Your task to perform on an android device: turn on notifications settings in the gmail app Image 0: 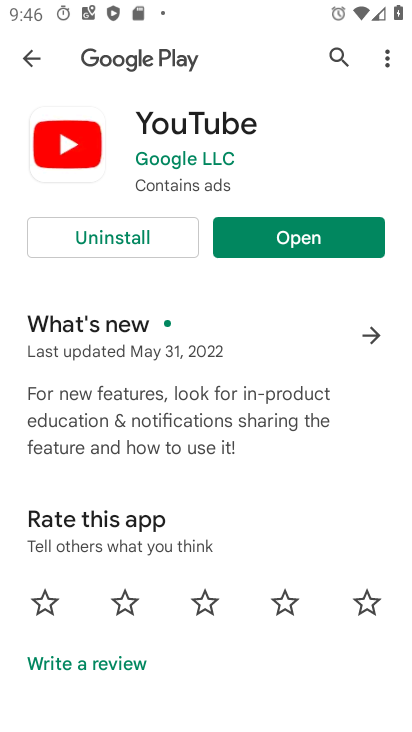
Step 0: press home button
Your task to perform on an android device: turn on notifications settings in the gmail app Image 1: 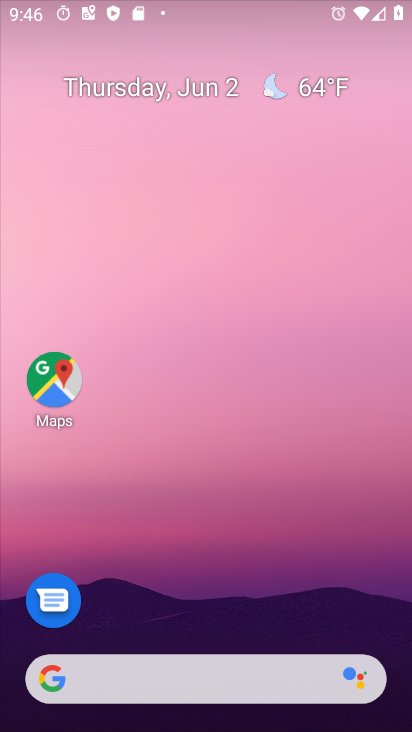
Step 1: drag from (207, 576) to (192, 62)
Your task to perform on an android device: turn on notifications settings in the gmail app Image 2: 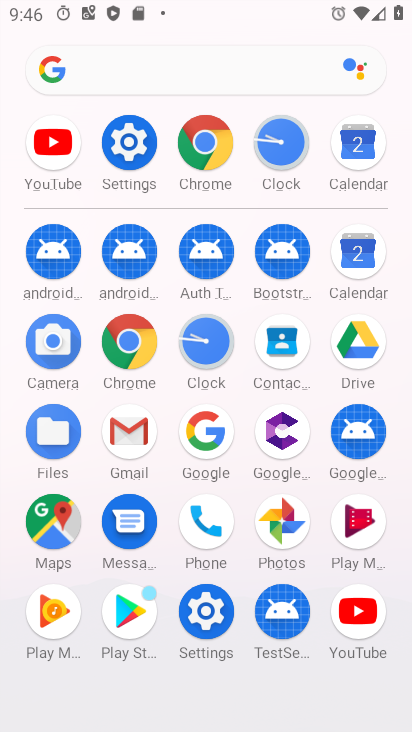
Step 2: click (127, 433)
Your task to perform on an android device: turn on notifications settings in the gmail app Image 3: 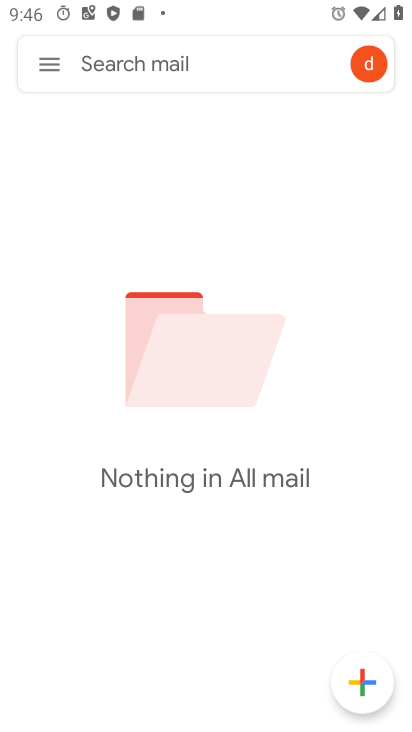
Step 3: click (49, 72)
Your task to perform on an android device: turn on notifications settings in the gmail app Image 4: 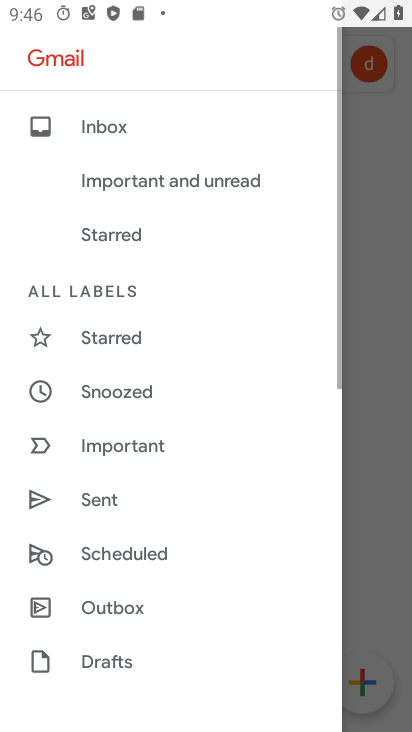
Step 4: drag from (124, 555) to (156, 80)
Your task to perform on an android device: turn on notifications settings in the gmail app Image 5: 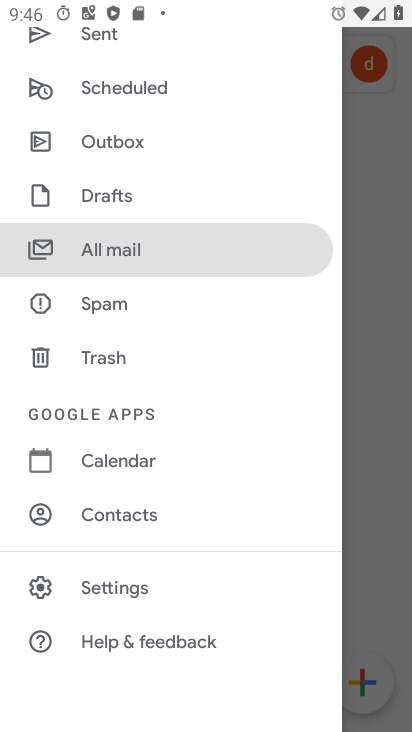
Step 5: click (107, 586)
Your task to perform on an android device: turn on notifications settings in the gmail app Image 6: 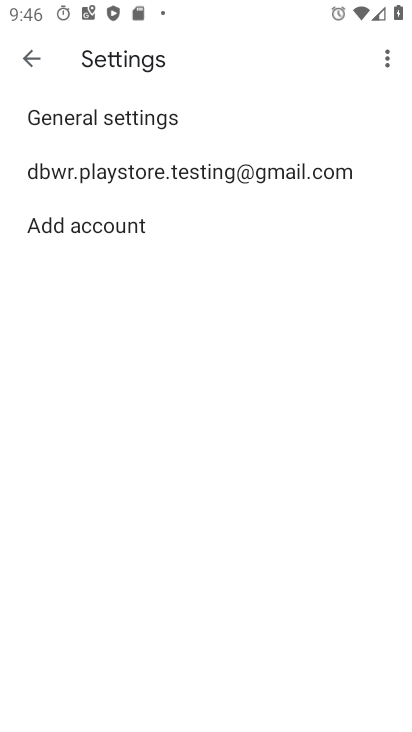
Step 6: click (197, 163)
Your task to perform on an android device: turn on notifications settings in the gmail app Image 7: 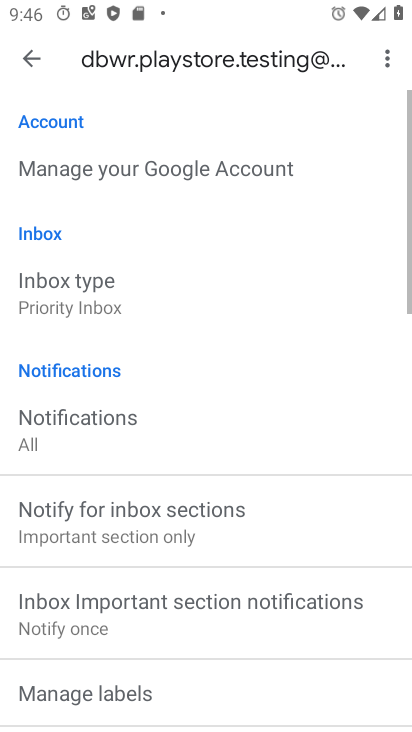
Step 7: click (107, 438)
Your task to perform on an android device: turn on notifications settings in the gmail app Image 8: 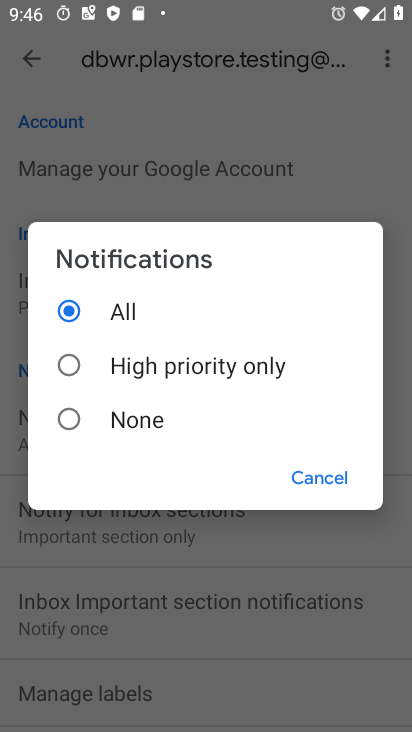
Step 8: task complete